Your task to perform on an android device: Open calendar and show me the third week of next month Image 0: 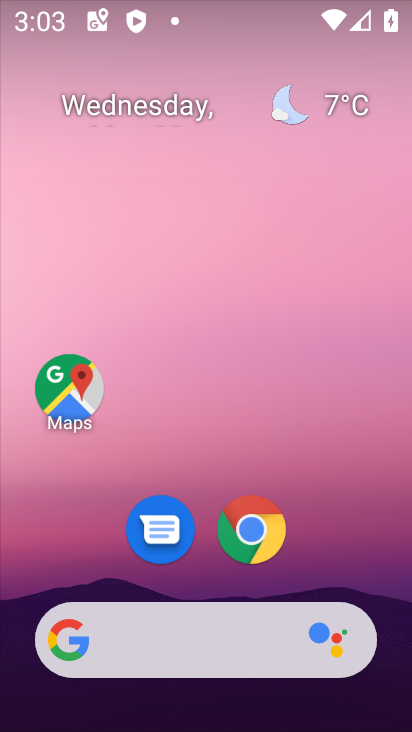
Step 0: drag from (3, 709) to (127, 143)
Your task to perform on an android device: Open calendar and show me the third week of next month Image 1: 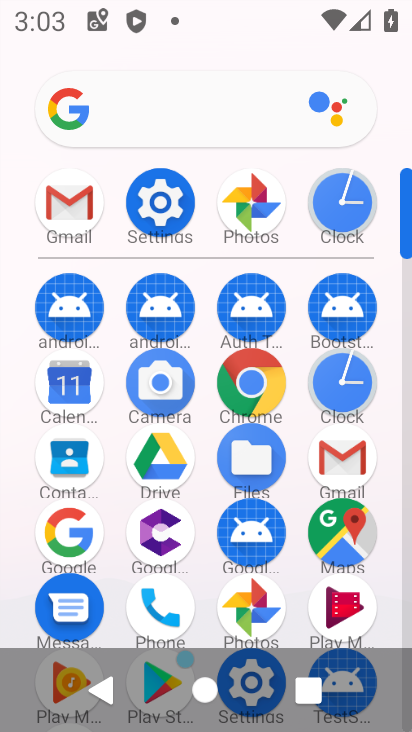
Step 1: click (57, 382)
Your task to perform on an android device: Open calendar and show me the third week of next month Image 2: 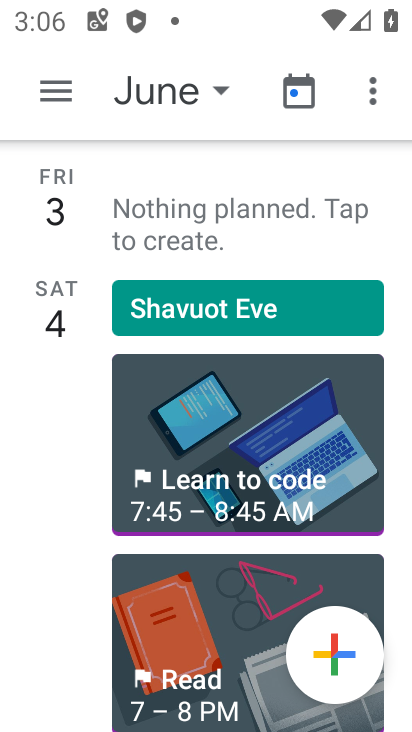
Step 2: click (202, 84)
Your task to perform on an android device: Open calendar and show me the third week of next month Image 3: 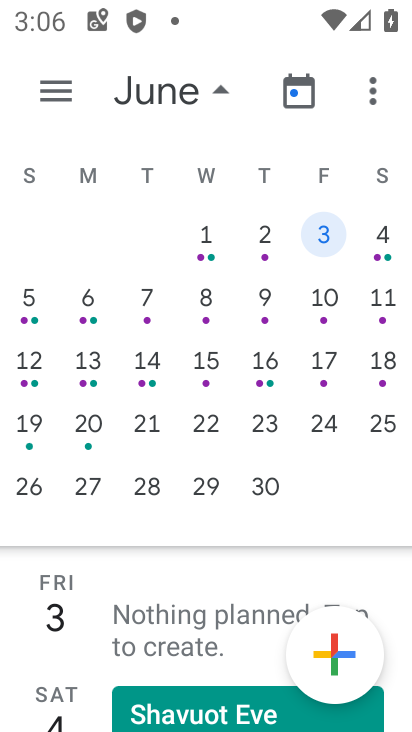
Step 3: click (25, 366)
Your task to perform on an android device: Open calendar and show me the third week of next month Image 4: 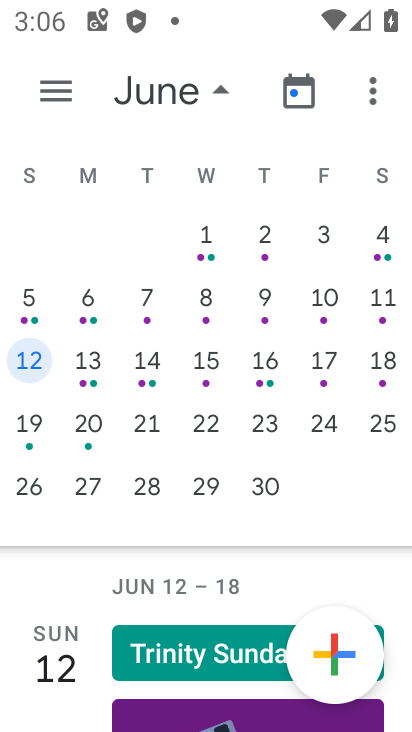
Step 4: click (91, 366)
Your task to perform on an android device: Open calendar and show me the third week of next month Image 5: 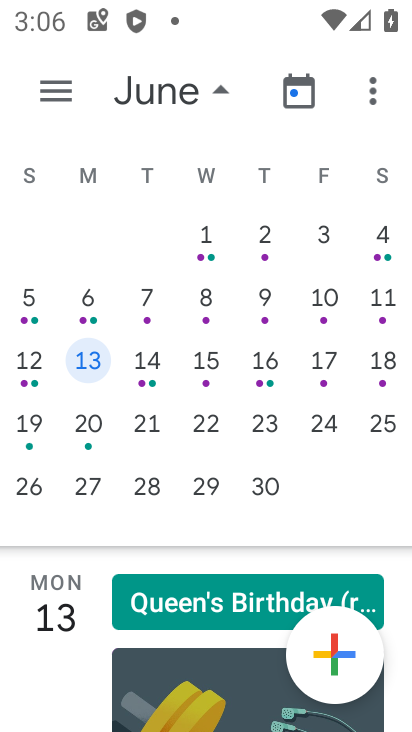
Step 5: click (131, 359)
Your task to perform on an android device: Open calendar and show me the third week of next month Image 6: 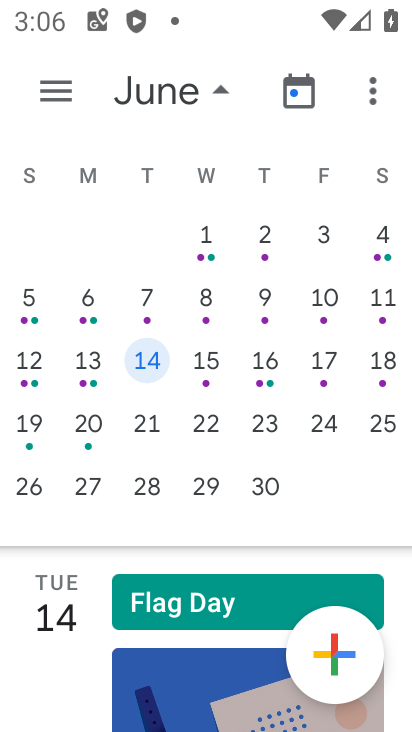
Step 6: task complete